Your task to perform on an android device: open app "Calculator" (install if not already installed) Image 0: 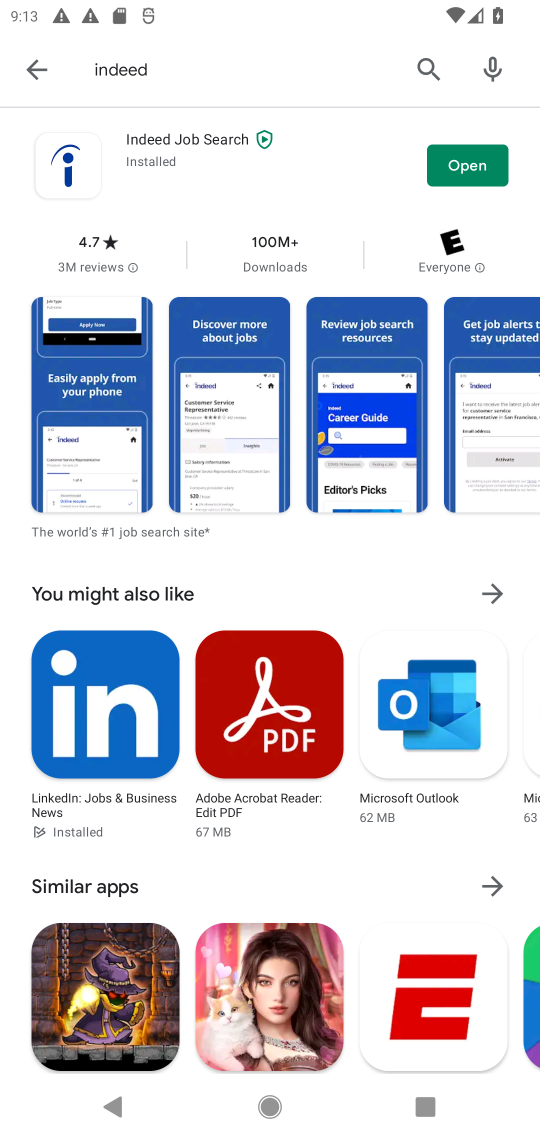
Step 0: click (412, 75)
Your task to perform on an android device: open app "Calculator" (install if not already installed) Image 1: 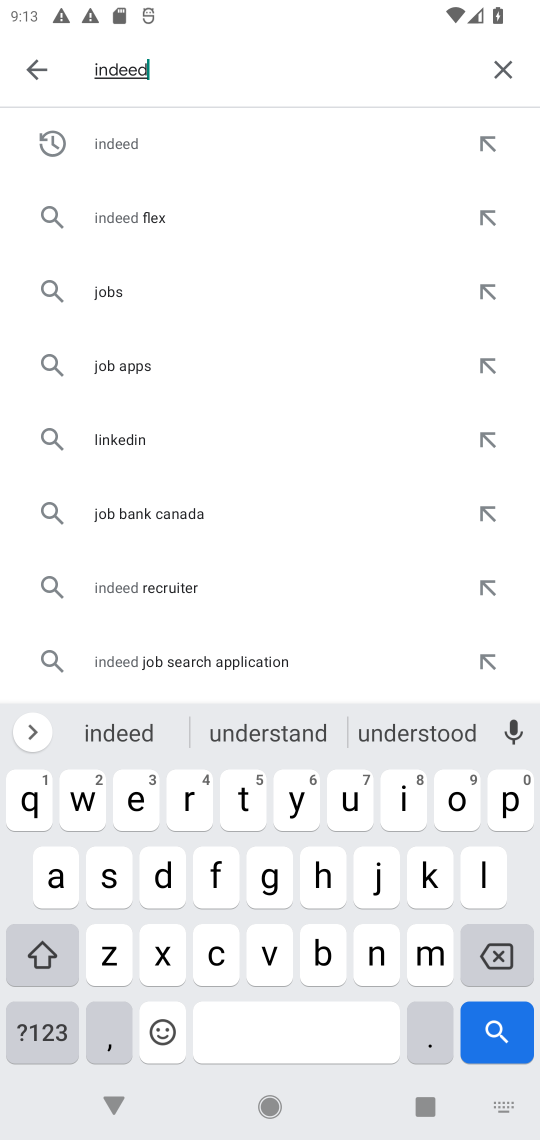
Step 1: click (500, 73)
Your task to perform on an android device: open app "Calculator" (install if not already installed) Image 2: 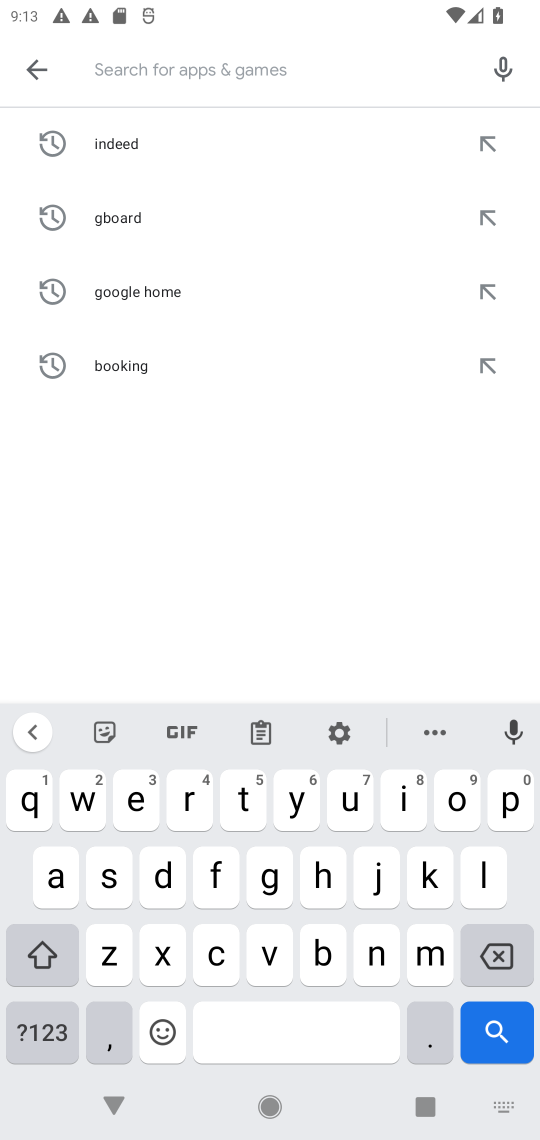
Step 2: click (207, 964)
Your task to perform on an android device: open app "Calculator" (install if not already installed) Image 3: 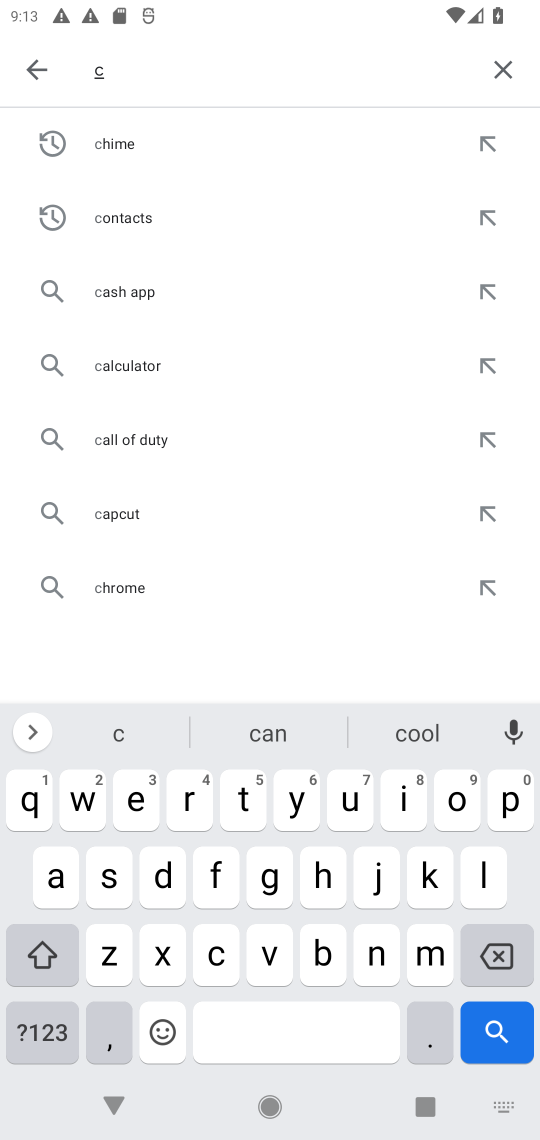
Step 3: click (55, 869)
Your task to perform on an android device: open app "Calculator" (install if not already installed) Image 4: 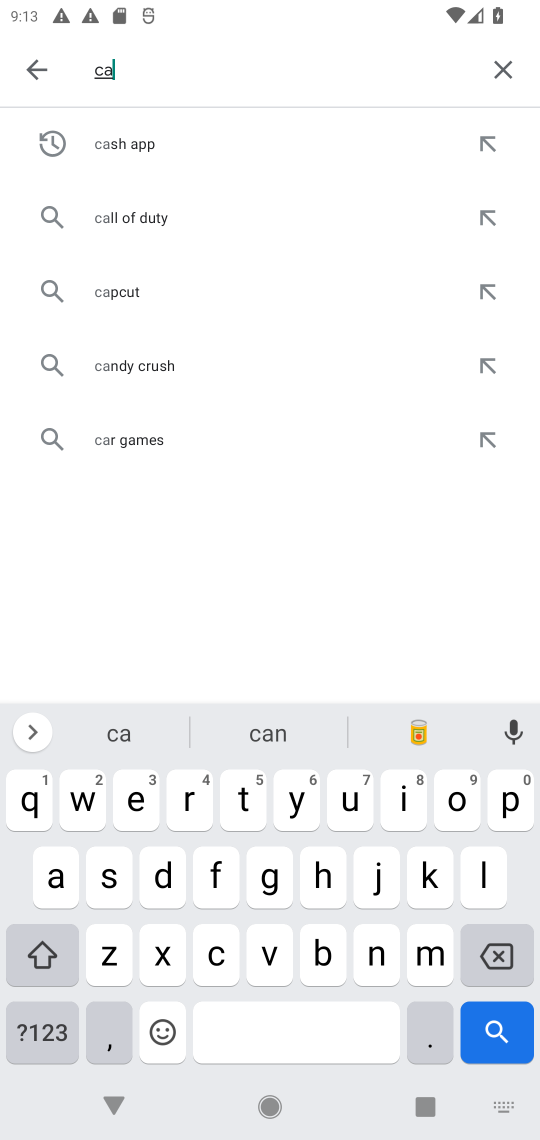
Step 4: click (489, 867)
Your task to perform on an android device: open app "Calculator" (install if not already installed) Image 5: 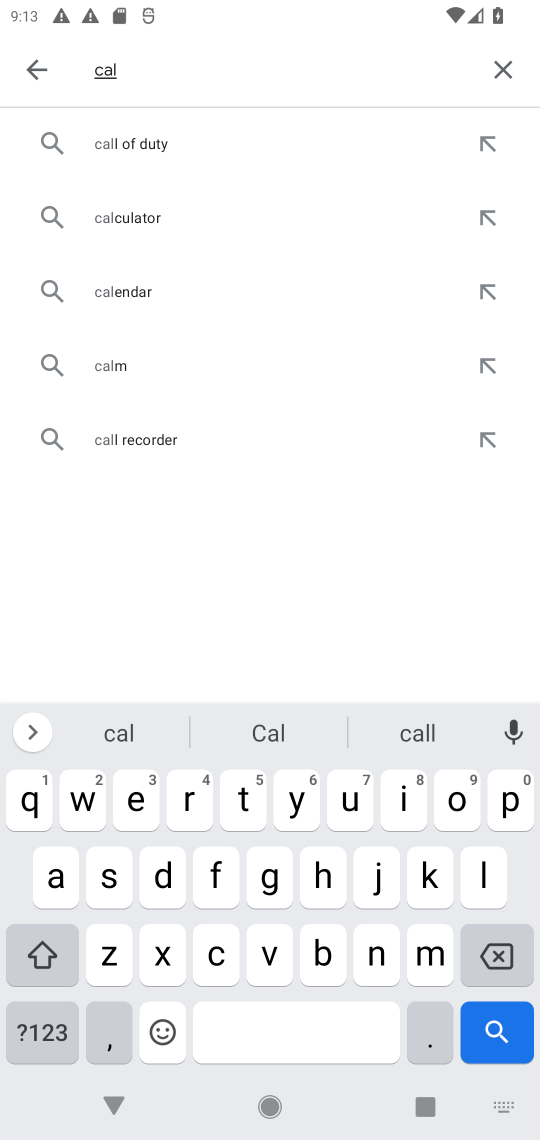
Step 5: click (210, 961)
Your task to perform on an android device: open app "Calculator" (install if not already installed) Image 6: 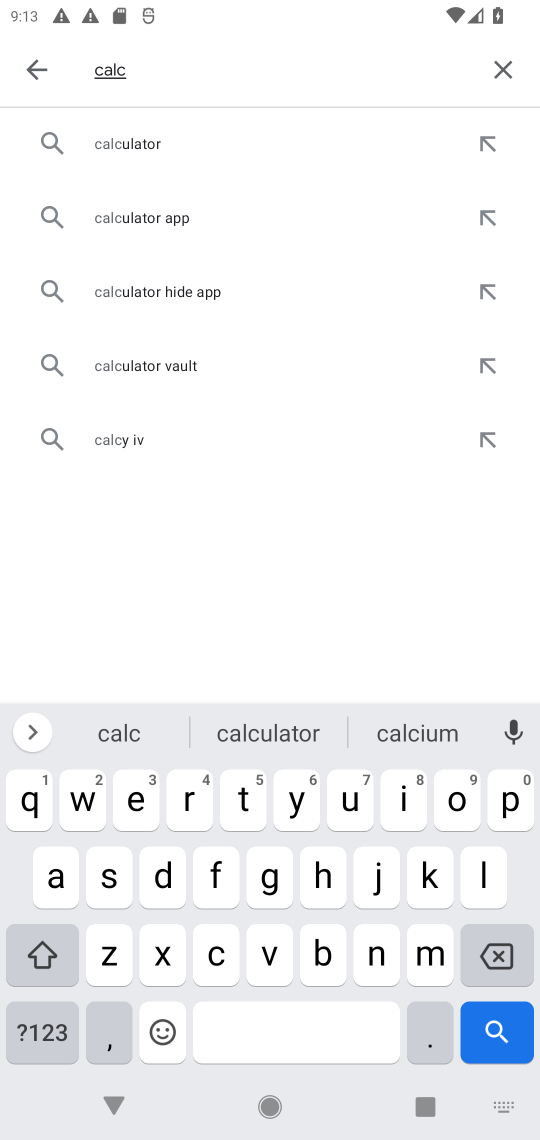
Step 6: click (167, 144)
Your task to perform on an android device: open app "Calculator" (install if not already installed) Image 7: 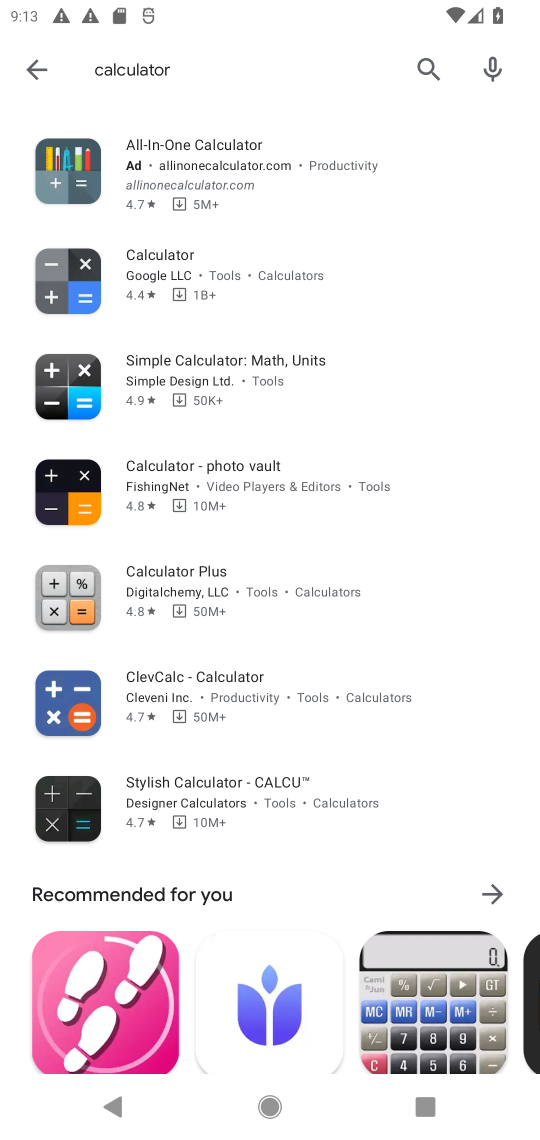
Step 7: click (176, 290)
Your task to perform on an android device: open app "Calculator" (install if not already installed) Image 8: 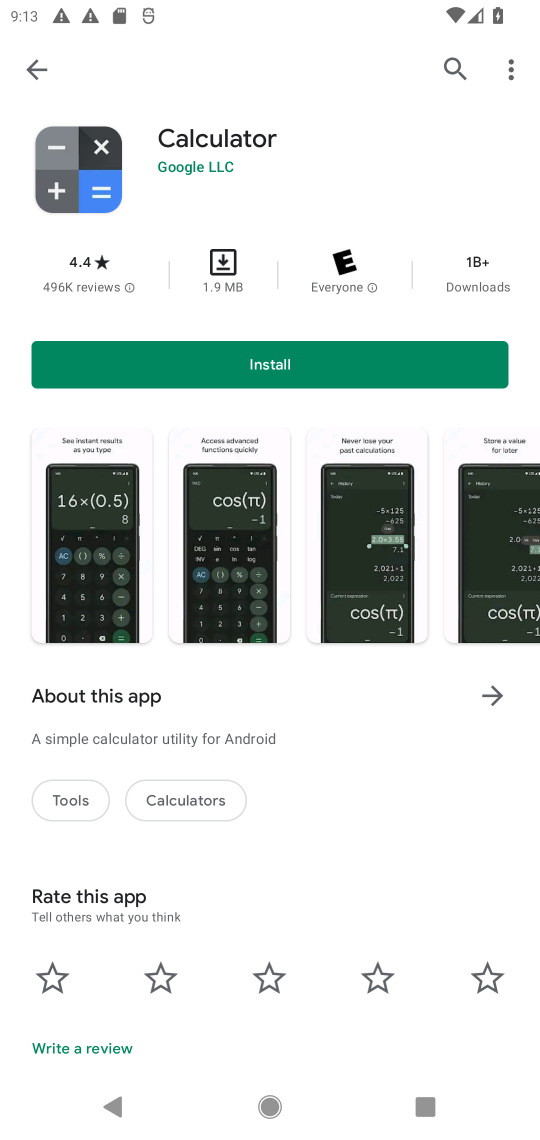
Step 8: click (349, 355)
Your task to perform on an android device: open app "Calculator" (install if not already installed) Image 9: 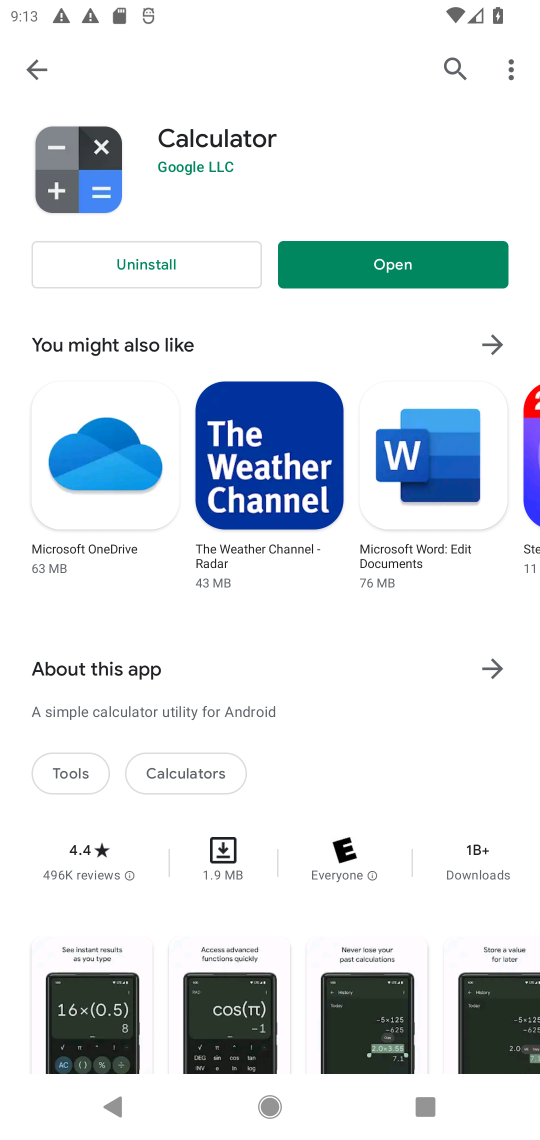
Step 9: click (366, 263)
Your task to perform on an android device: open app "Calculator" (install if not already installed) Image 10: 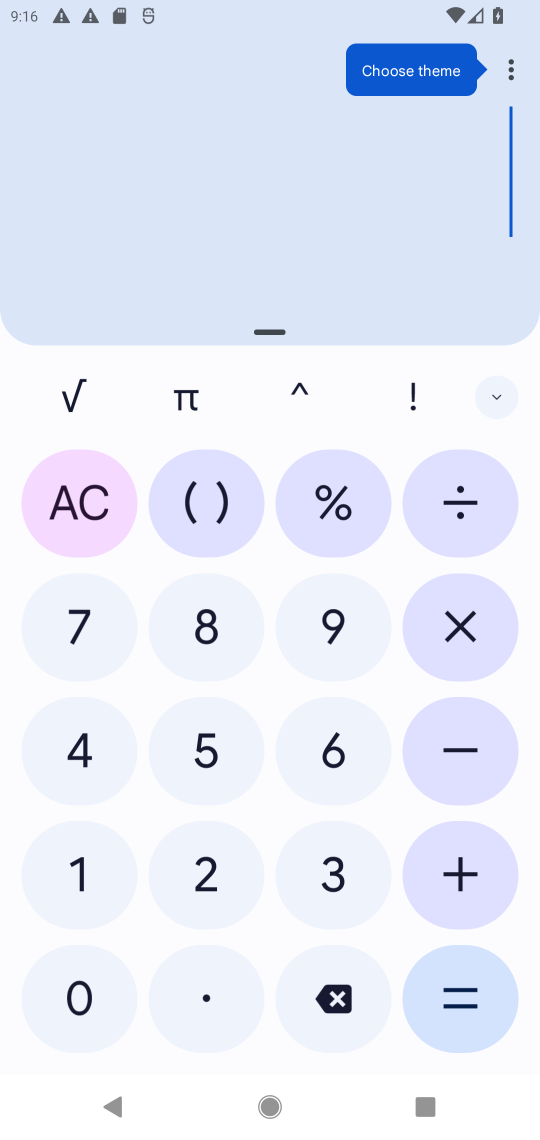
Step 10: task complete